Your task to perform on an android device: turn off translation in the chrome app Image 0: 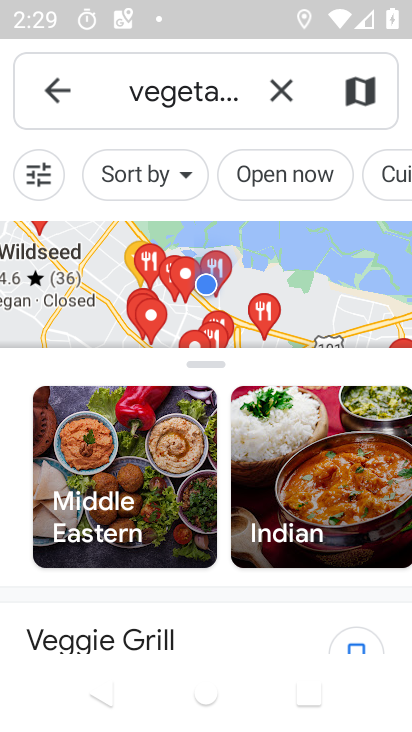
Step 0: press home button
Your task to perform on an android device: turn off translation in the chrome app Image 1: 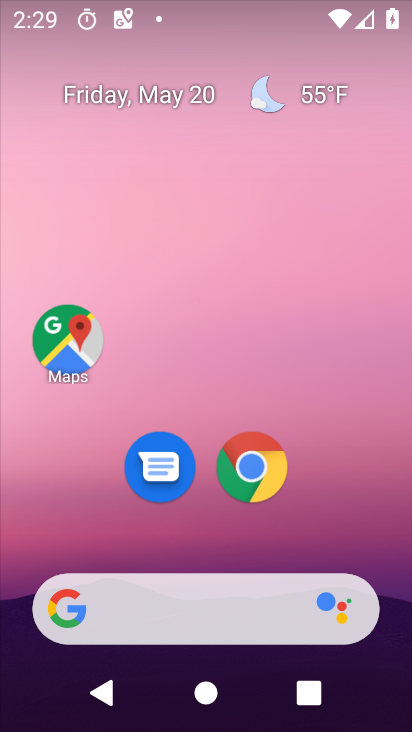
Step 1: click (252, 465)
Your task to perform on an android device: turn off translation in the chrome app Image 2: 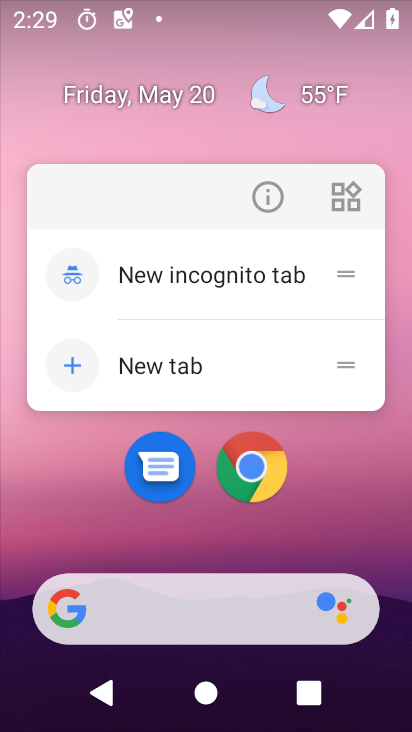
Step 2: click (237, 462)
Your task to perform on an android device: turn off translation in the chrome app Image 3: 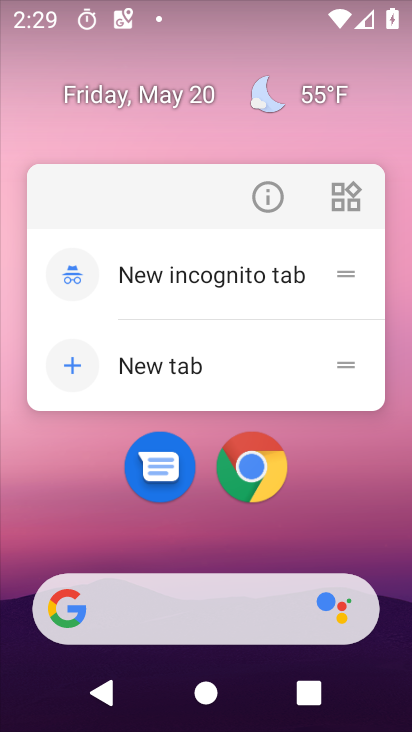
Step 3: click (244, 466)
Your task to perform on an android device: turn off translation in the chrome app Image 4: 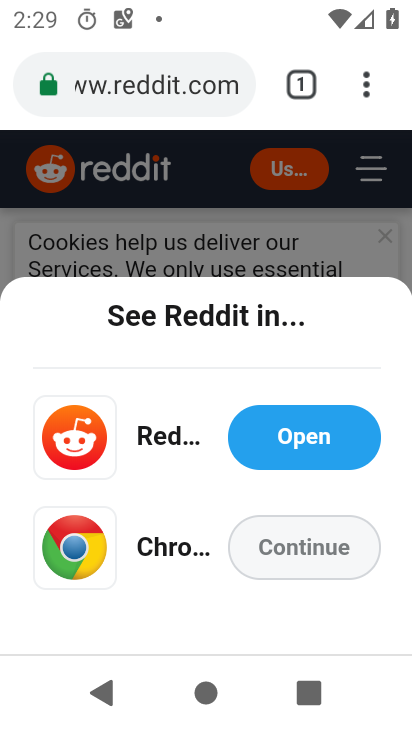
Step 4: click (358, 89)
Your task to perform on an android device: turn off translation in the chrome app Image 5: 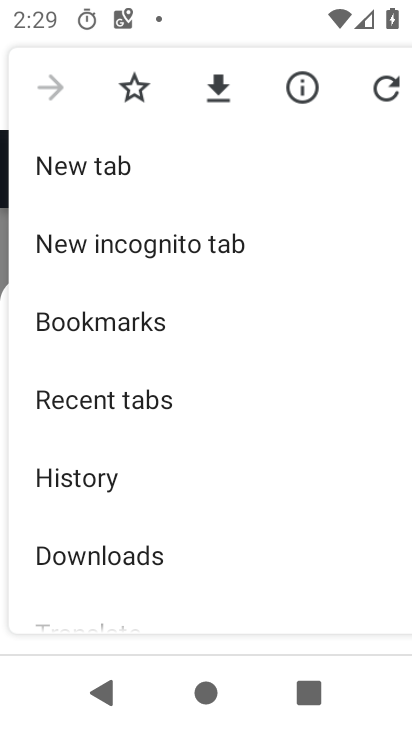
Step 5: drag from (127, 583) to (117, 196)
Your task to perform on an android device: turn off translation in the chrome app Image 6: 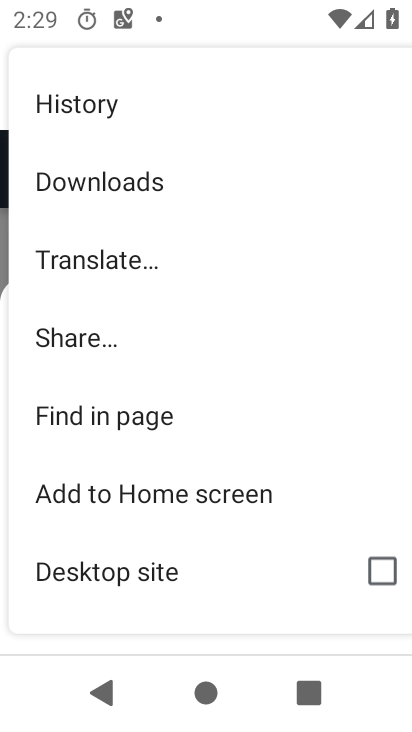
Step 6: drag from (99, 579) to (101, 285)
Your task to perform on an android device: turn off translation in the chrome app Image 7: 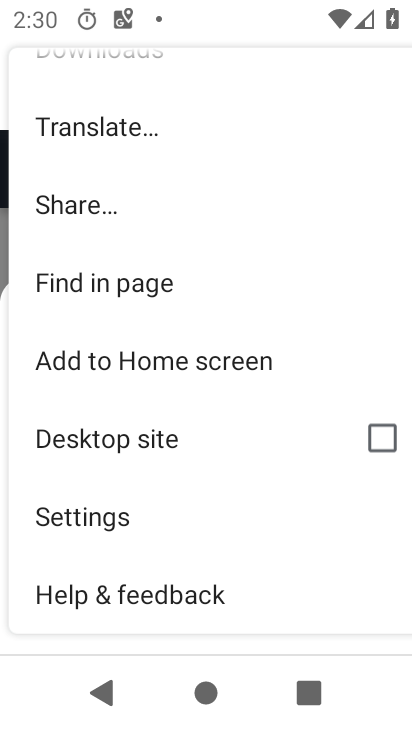
Step 7: click (86, 507)
Your task to perform on an android device: turn off translation in the chrome app Image 8: 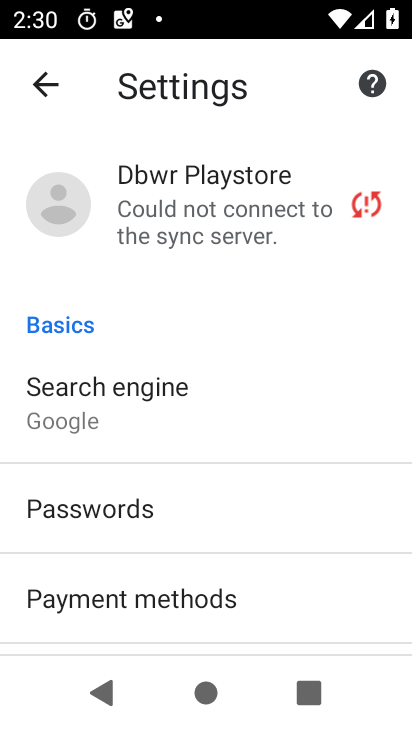
Step 8: drag from (69, 619) to (81, 286)
Your task to perform on an android device: turn off translation in the chrome app Image 9: 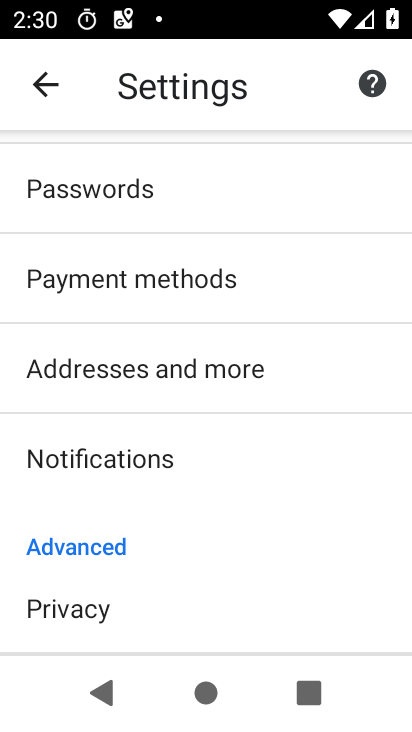
Step 9: drag from (114, 601) to (167, 210)
Your task to perform on an android device: turn off translation in the chrome app Image 10: 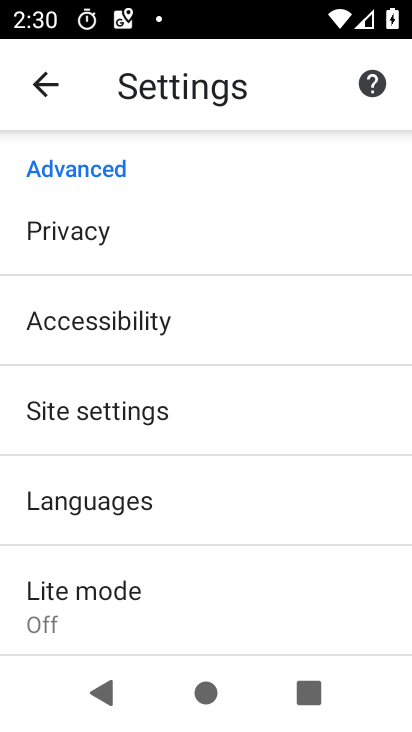
Step 10: click (134, 506)
Your task to perform on an android device: turn off translation in the chrome app Image 11: 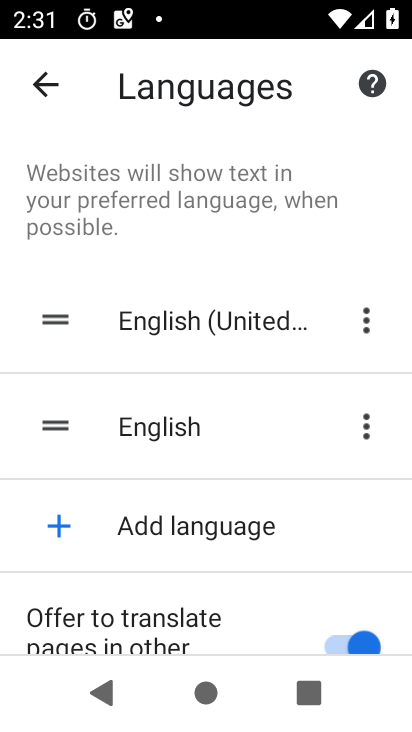
Step 11: drag from (162, 596) to (164, 328)
Your task to perform on an android device: turn off translation in the chrome app Image 12: 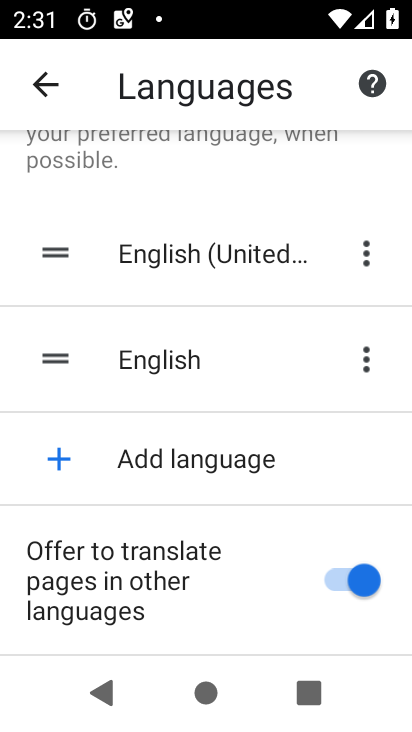
Step 12: click (347, 578)
Your task to perform on an android device: turn off translation in the chrome app Image 13: 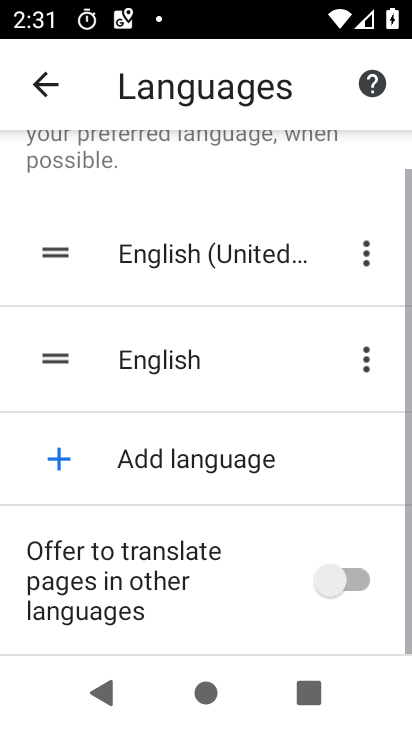
Step 13: task complete